Your task to perform on an android device: allow notifications from all sites in the chrome app Image 0: 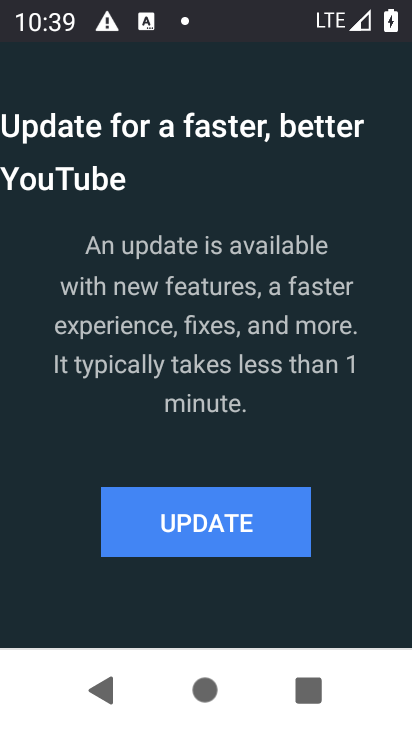
Step 0: press home button
Your task to perform on an android device: allow notifications from all sites in the chrome app Image 1: 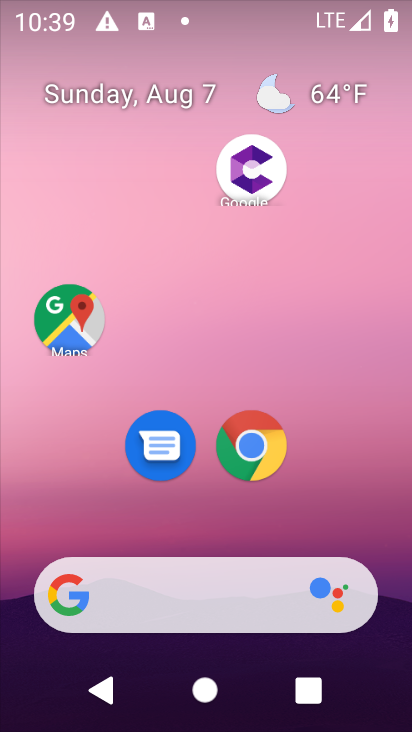
Step 1: click (252, 440)
Your task to perform on an android device: allow notifications from all sites in the chrome app Image 2: 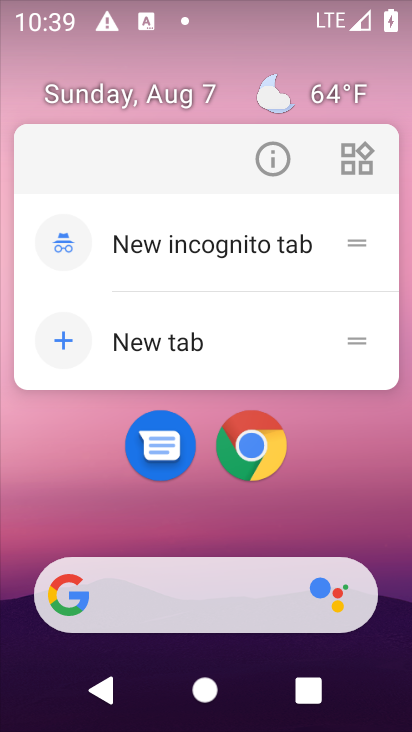
Step 2: click (252, 440)
Your task to perform on an android device: allow notifications from all sites in the chrome app Image 3: 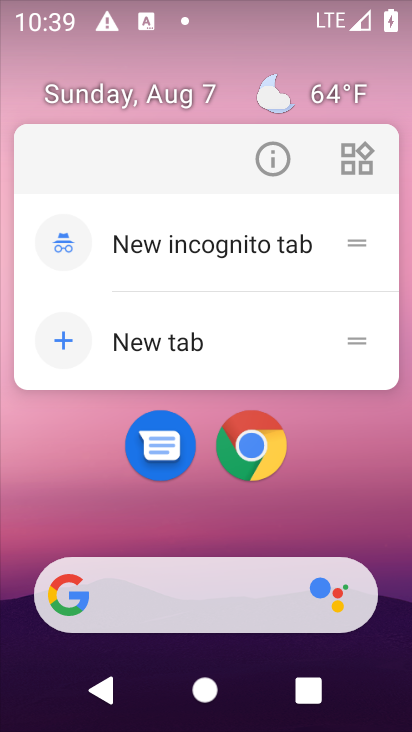
Step 3: click (340, 464)
Your task to perform on an android device: allow notifications from all sites in the chrome app Image 4: 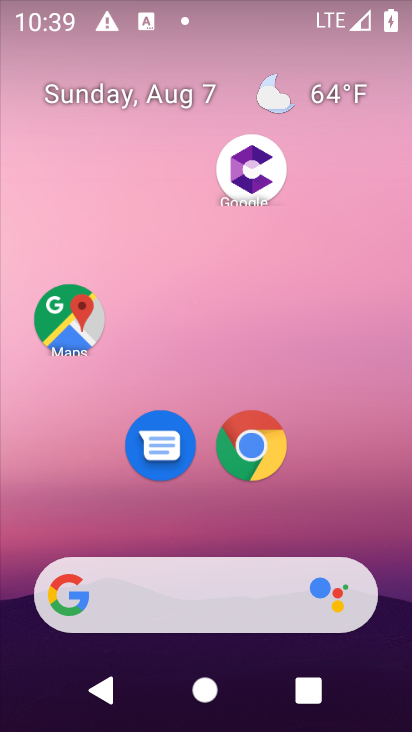
Step 4: click (251, 440)
Your task to perform on an android device: allow notifications from all sites in the chrome app Image 5: 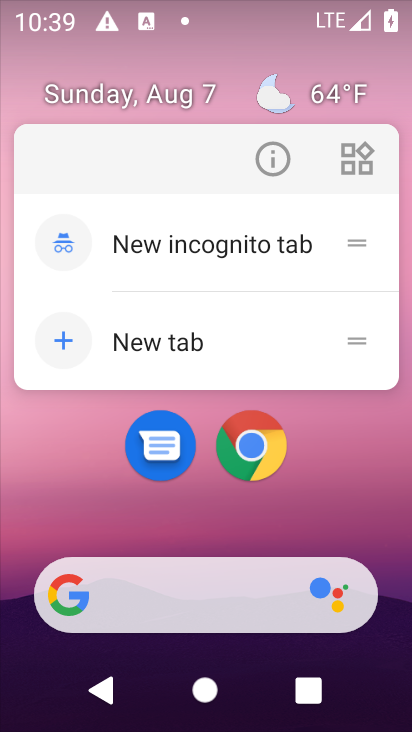
Step 5: click (251, 440)
Your task to perform on an android device: allow notifications from all sites in the chrome app Image 6: 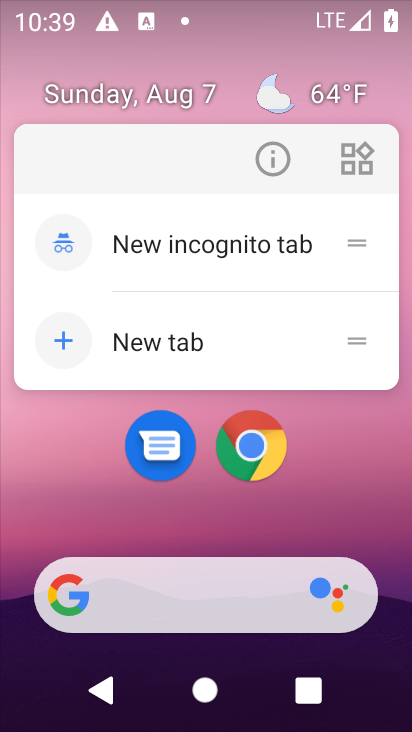
Step 6: click (332, 512)
Your task to perform on an android device: allow notifications from all sites in the chrome app Image 7: 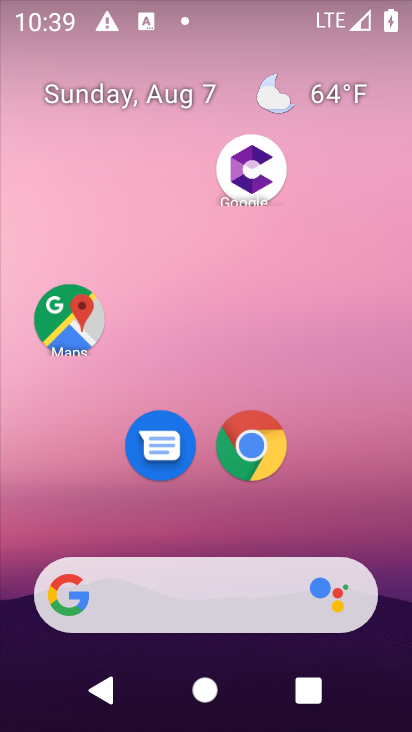
Step 7: drag from (328, 531) to (349, 36)
Your task to perform on an android device: allow notifications from all sites in the chrome app Image 8: 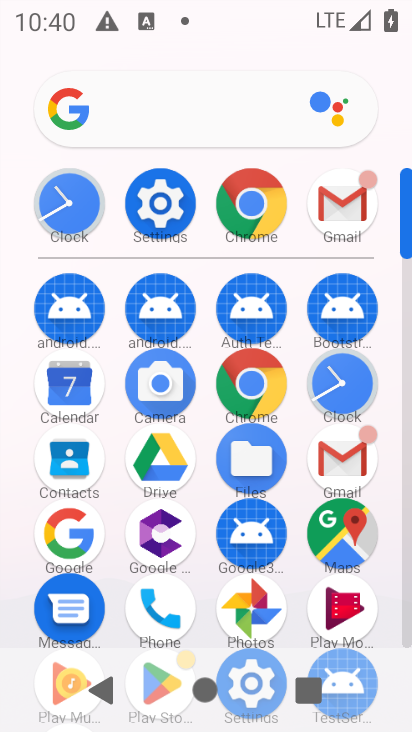
Step 8: click (250, 194)
Your task to perform on an android device: allow notifications from all sites in the chrome app Image 9: 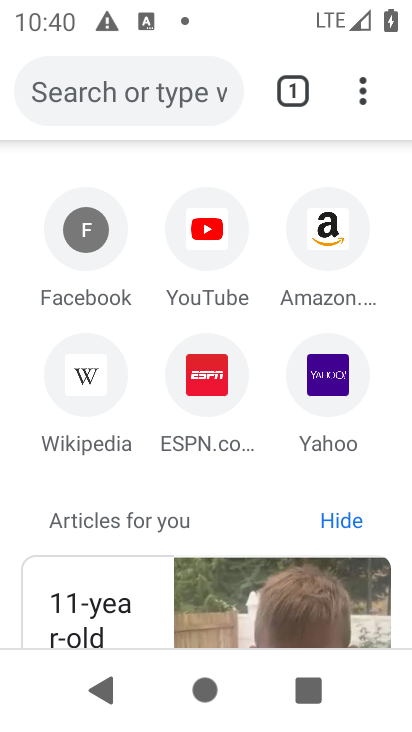
Step 9: click (360, 88)
Your task to perform on an android device: allow notifications from all sites in the chrome app Image 10: 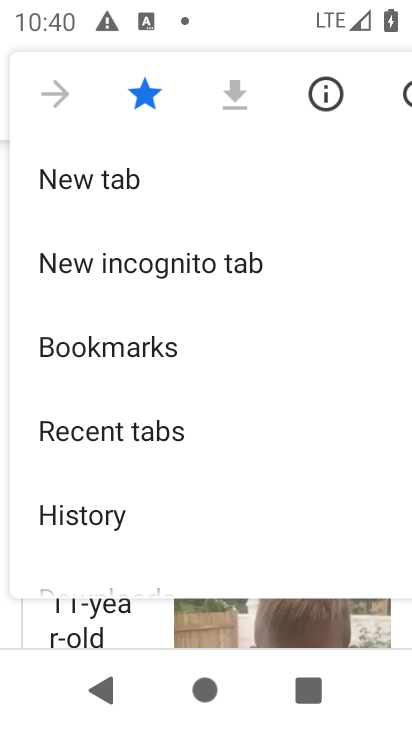
Step 10: drag from (162, 537) to (167, 87)
Your task to perform on an android device: allow notifications from all sites in the chrome app Image 11: 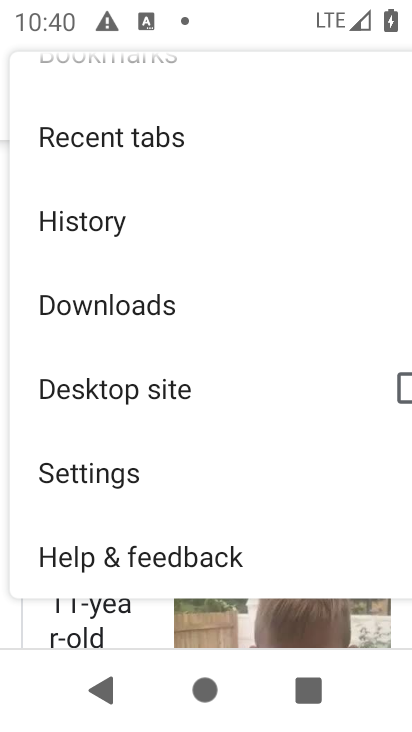
Step 11: click (161, 467)
Your task to perform on an android device: allow notifications from all sites in the chrome app Image 12: 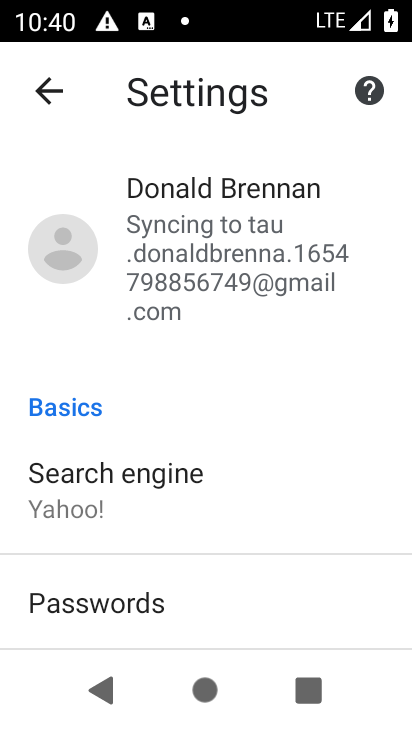
Step 12: drag from (212, 610) to (208, 119)
Your task to perform on an android device: allow notifications from all sites in the chrome app Image 13: 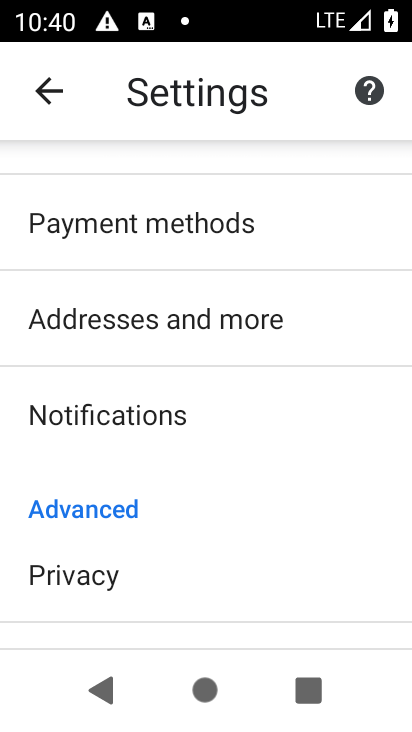
Step 13: drag from (211, 589) to (210, 212)
Your task to perform on an android device: allow notifications from all sites in the chrome app Image 14: 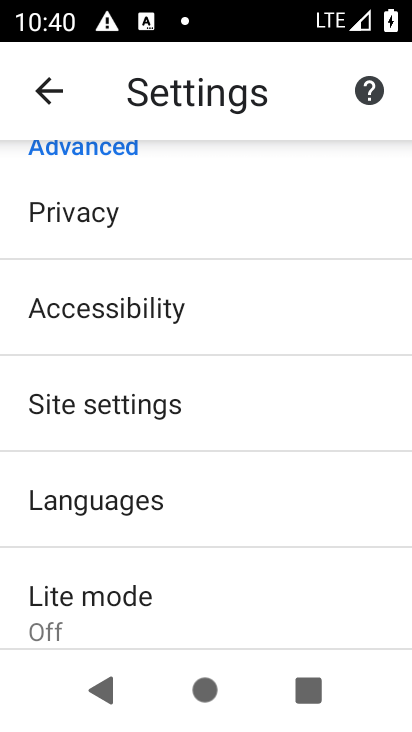
Step 14: click (196, 402)
Your task to perform on an android device: allow notifications from all sites in the chrome app Image 15: 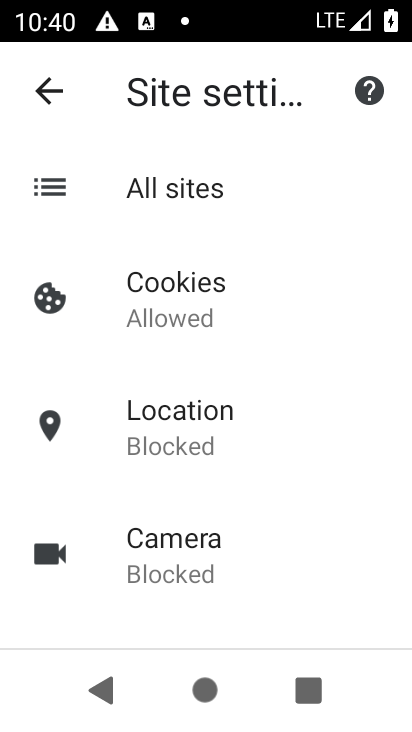
Step 15: click (176, 174)
Your task to perform on an android device: allow notifications from all sites in the chrome app Image 16: 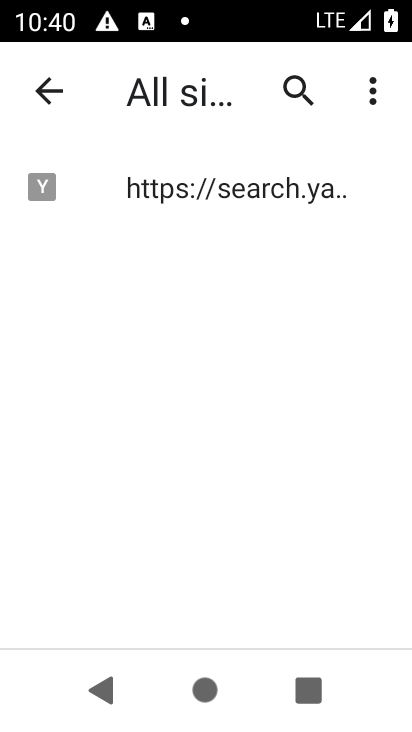
Step 16: click (124, 173)
Your task to perform on an android device: allow notifications from all sites in the chrome app Image 17: 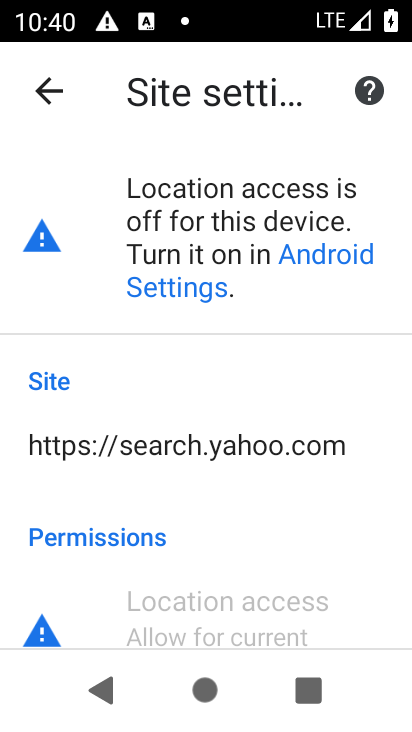
Step 17: task complete